Your task to perform on an android device: turn on javascript in the chrome app Image 0: 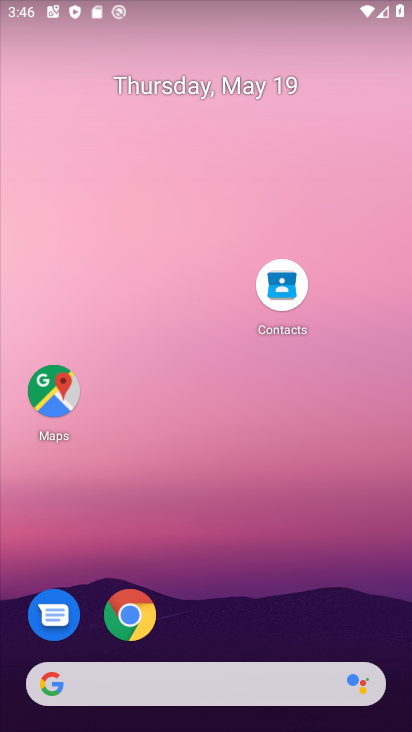
Step 0: click (129, 608)
Your task to perform on an android device: turn on javascript in the chrome app Image 1: 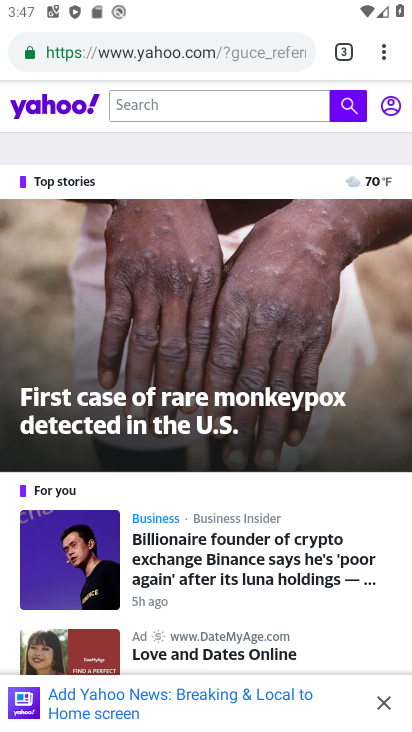
Step 1: click (382, 51)
Your task to perform on an android device: turn on javascript in the chrome app Image 2: 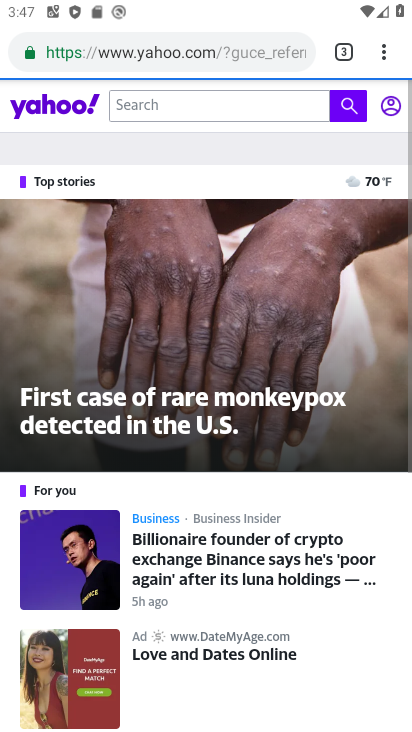
Step 2: click (391, 58)
Your task to perform on an android device: turn on javascript in the chrome app Image 3: 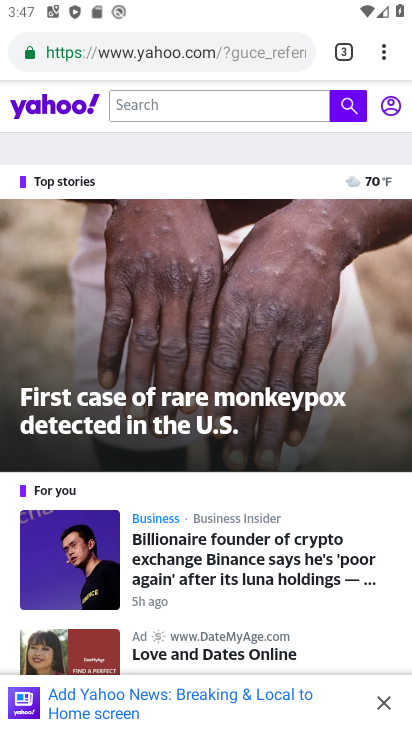
Step 3: click (390, 60)
Your task to perform on an android device: turn on javascript in the chrome app Image 4: 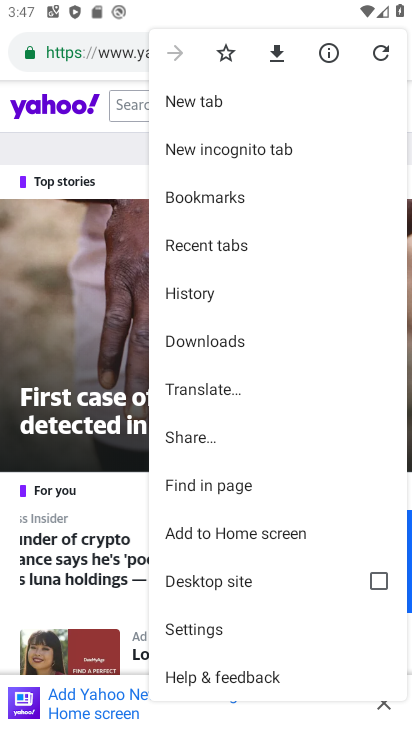
Step 4: drag from (249, 504) to (258, 371)
Your task to perform on an android device: turn on javascript in the chrome app Image 5: 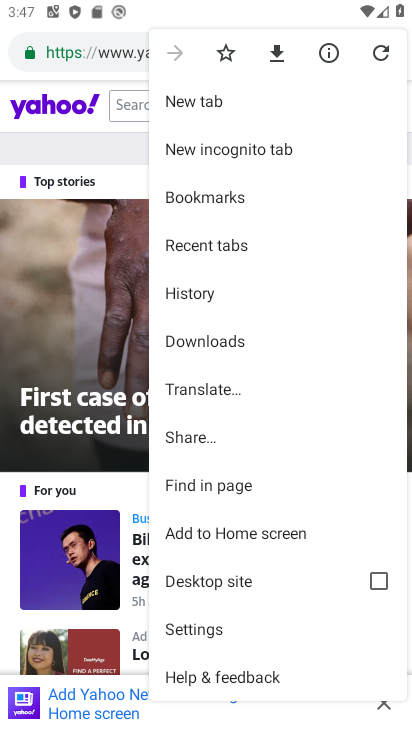
Step 5: click (217, 634)
Your task to perform on an android device: turn on javascript in the chrome app Image 6: 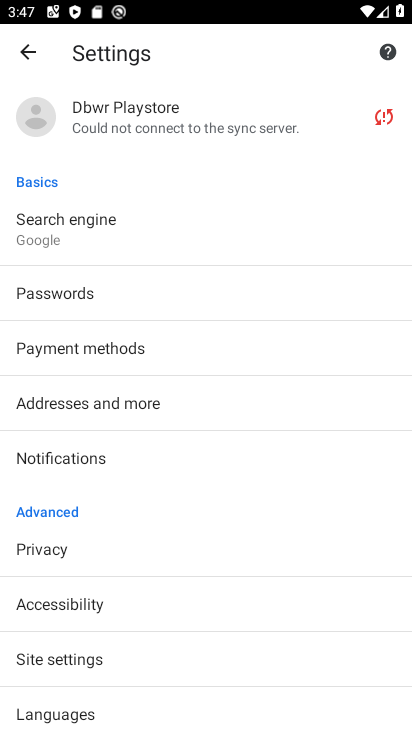
Step 6: drag from (170, 613) to (161, 411)
Your task to perform on an android device: turn on javascript in the chrome app Image 7: 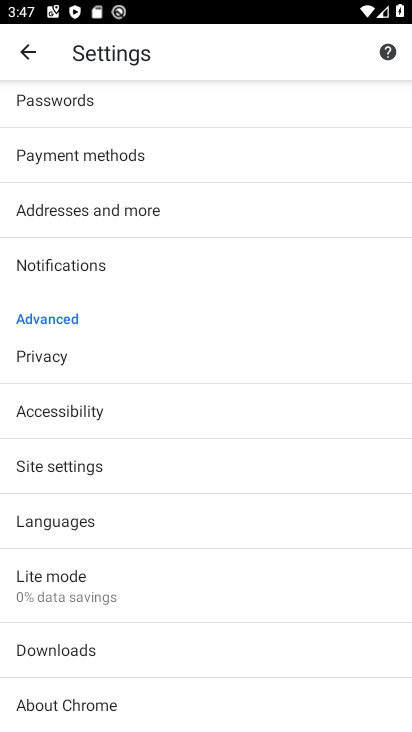
Step 7: click (105, 468)
Your task to perform on an android device: turn on javascript in the chrome app Image 8: 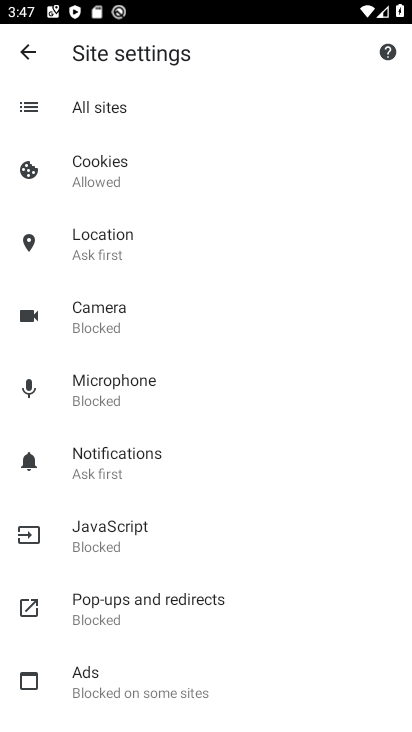
Step 8: click (153, 547)
Your task to perform on an android device: turn on javascript in the chrome app Image 9: 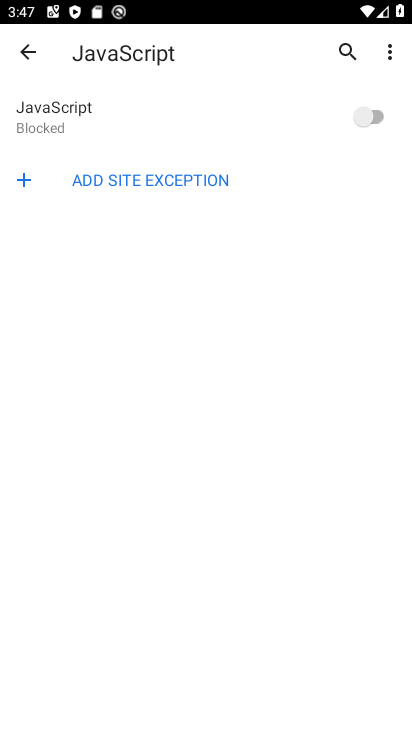
Step 9: click (380, 112)
Your task to perform on an android device: turn on javascript in the chrome app Image 10: 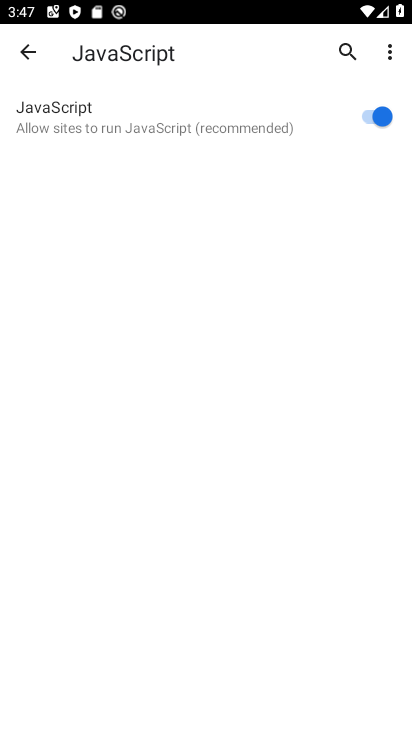
Step 10: task complete